Your task to perform on an android device: see sites visited before in the chrome app Image 0: 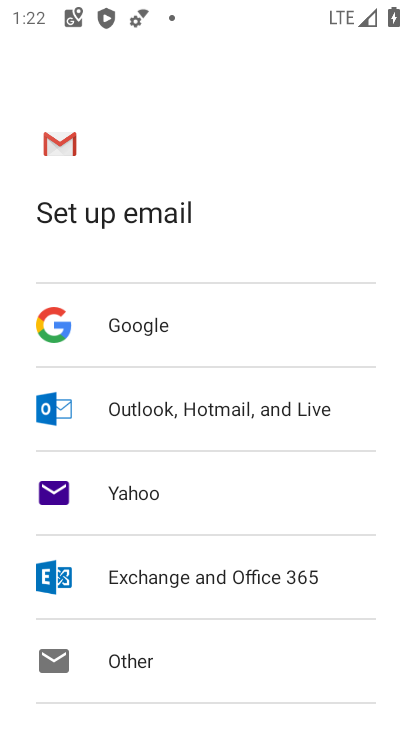
Step 0: press home button
Your task to perform on an android device: see sites visited before in the chrome app Image 1: 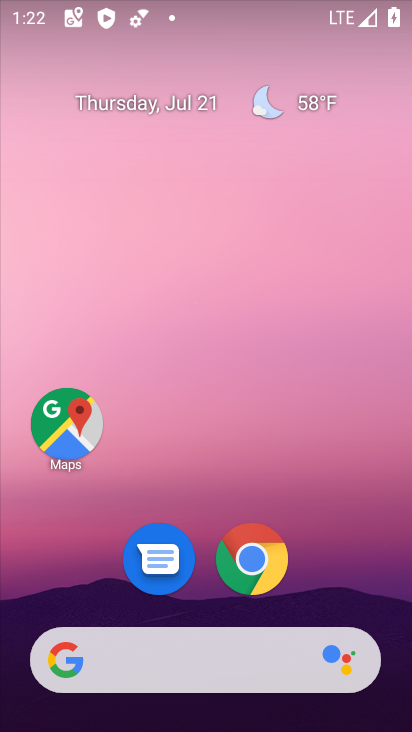
Step 1: drag from (368, 545) to (403, 127)
Your task to perform on an android device: see sites visited before in the chrome app Image 2: 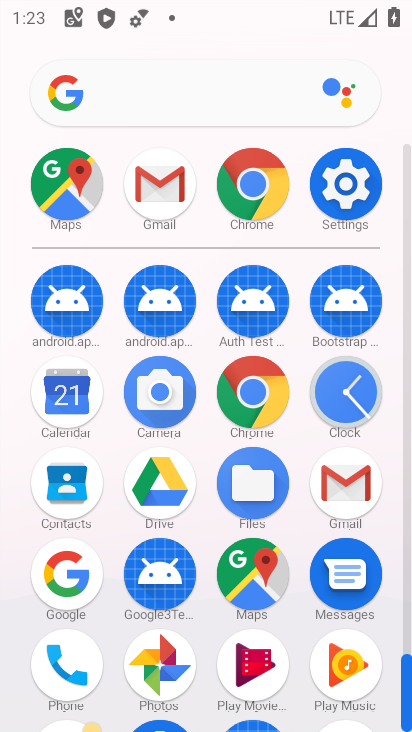
Step 2: click (266, 398)
Your task to perform on an android device: see sites visited before in the chrome app Image 3: 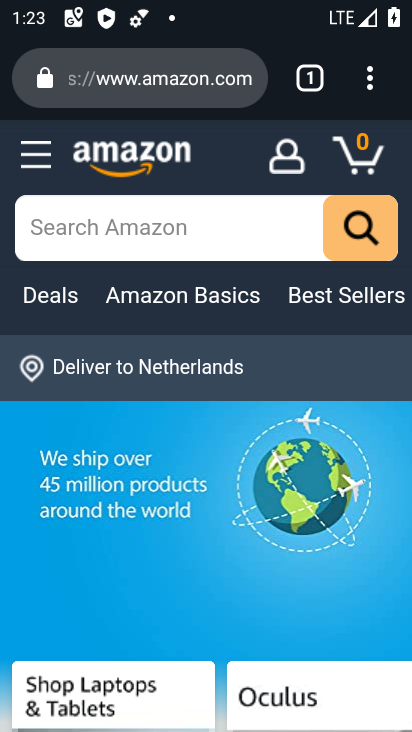
Step 3: click (371, 88)
Your task to perform on an android device: see sites visited before in the chrome app Image 4: 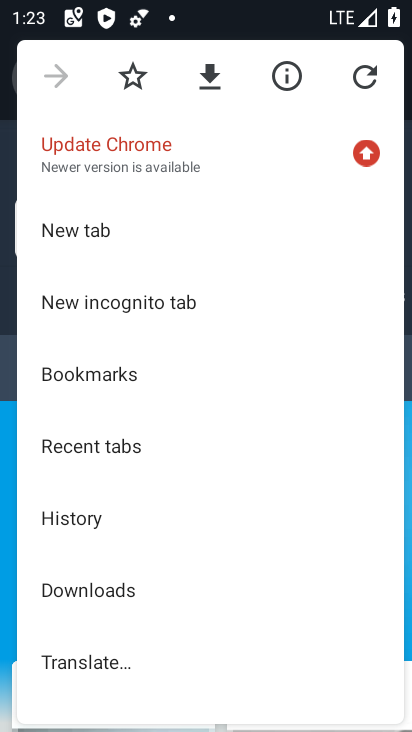
Step 4: drag from (336, 513) to (334, 454)
Your task to perform on an android device: see sites visited before in the chrome app Image 5: 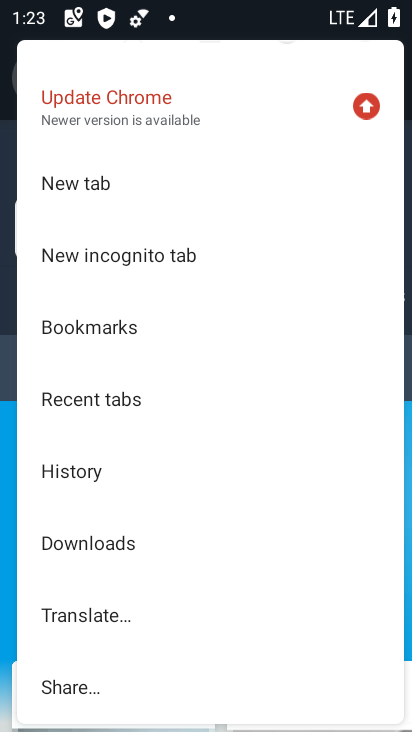
Step 5: drag from (319, 535) to (325, 440)
Your task to perform on an android device: see sites visited before in the chrome app Image 6: 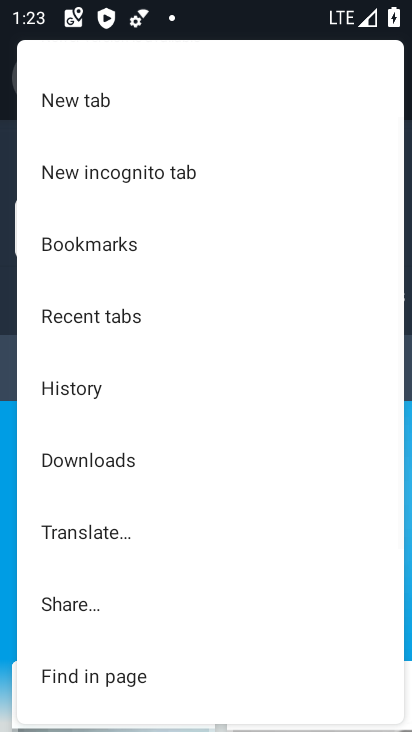
Step 6: drag from (327, 556) to (321, 473)
Your task to perform on an android device: see sites visited before in the chrome app Image 7: 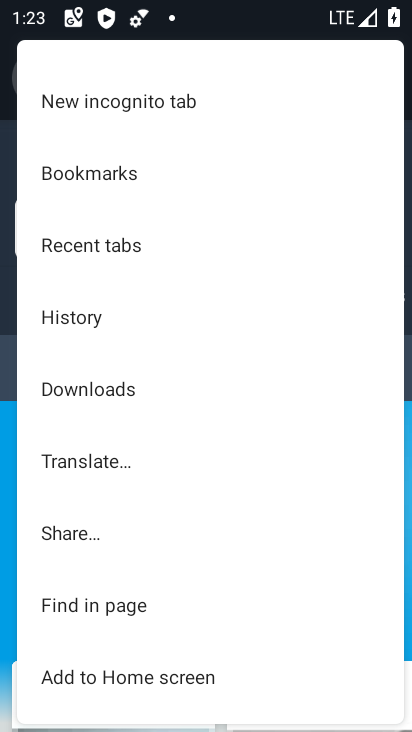
Step 7: drag from (310, 530) to (315, 471)
Your task to perform on an android device: see sites visited before in the chrome app Image 8: 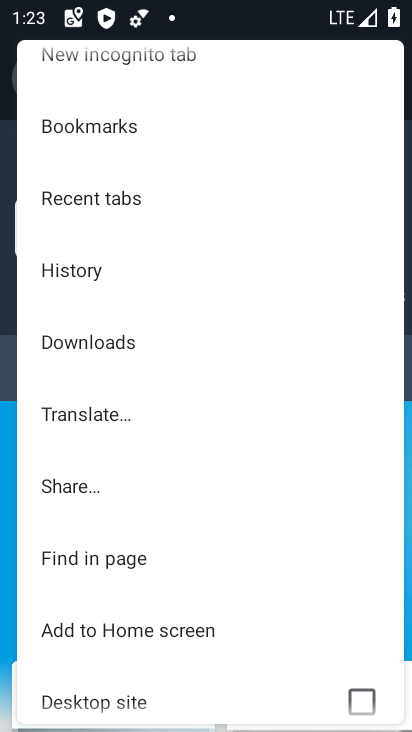
Step 8: click (193, 280)
Your task to perform on an android device: see sites visited before in the chrome app Image 9: 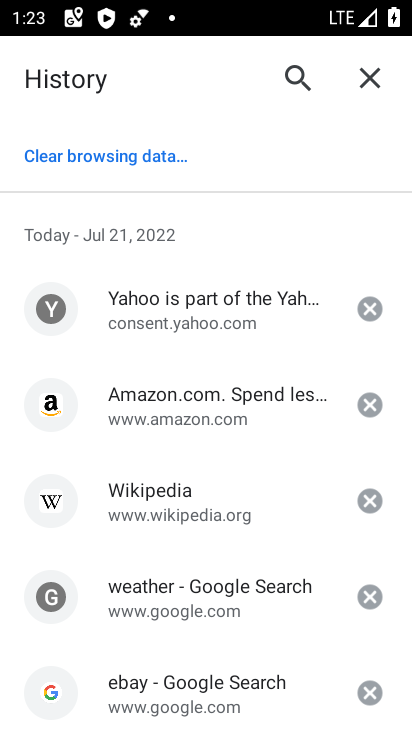
Step 9: task complete